Your task to perform on an android device: toggle notification dots Image 0: 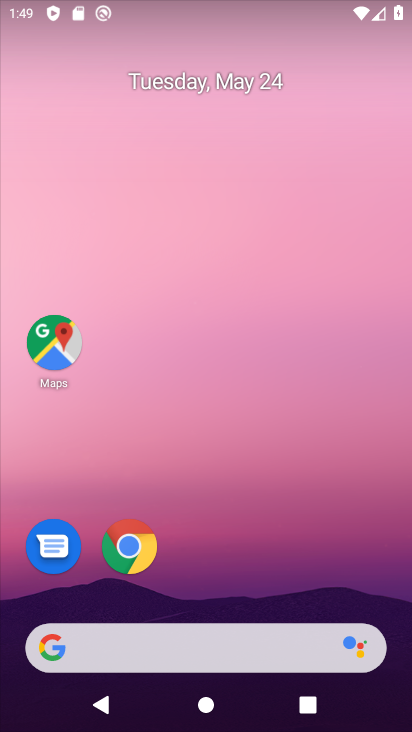
Step 0: drag from (204, 584) to (283, 63)
Your task to perform on an android device: toggle notification dots Image 1: 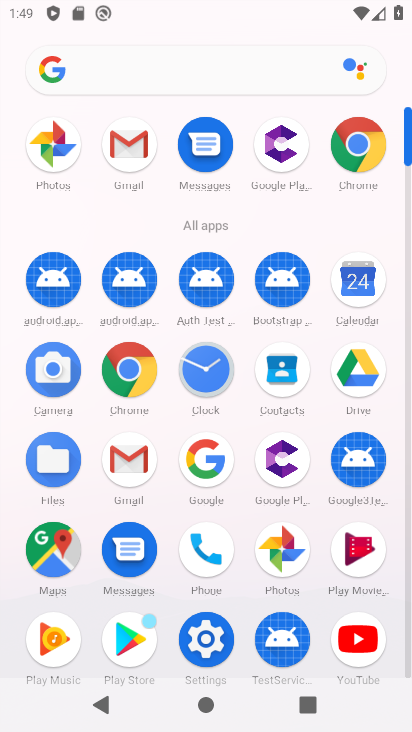
Step 1: click (198, 653)
Your task to perform on an android device: toggle notification dots Image 2: 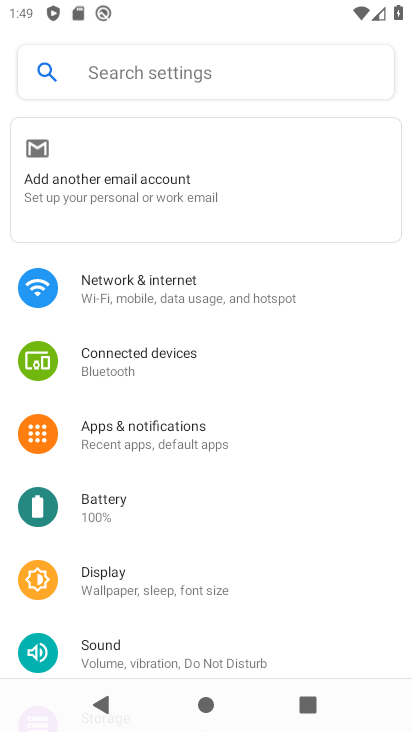
Step 2: click (231, 439)
Your task to perform on an android device: toggle notification dots Image 3: 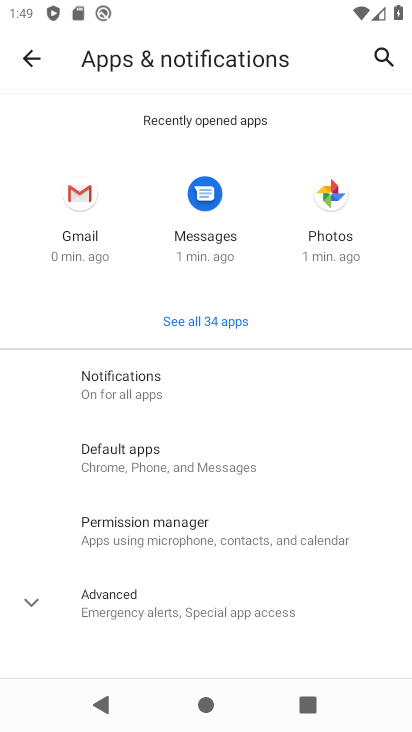
Step 3: click (211, 395)
Your task to perform on an android device: toggle notification dots Image 4: 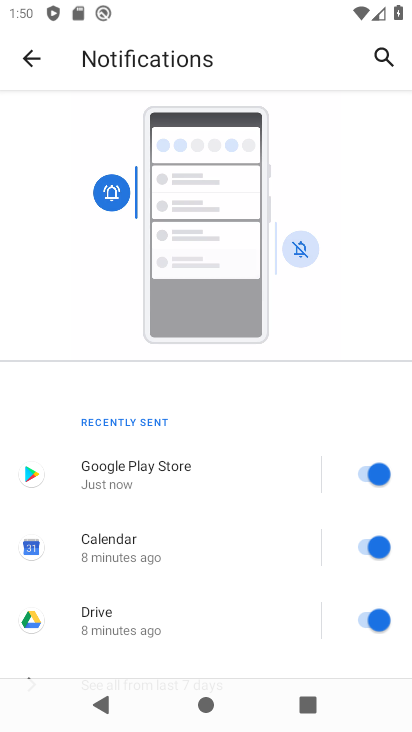
Step 4: drag from (118, 683) to (234, 6)
Your task to perform on an android device: toggle notification dots Image 5: 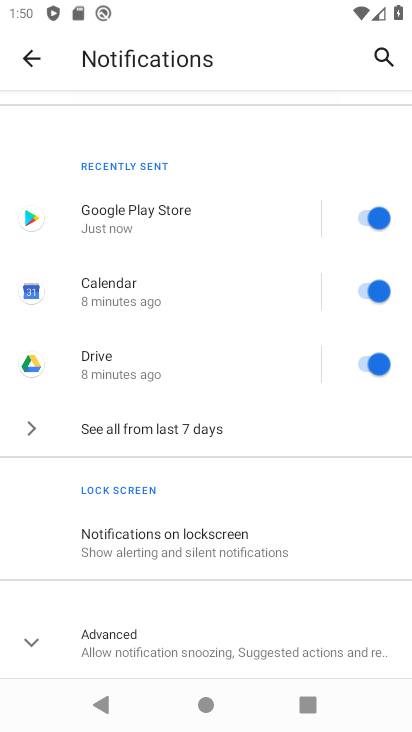
Step 5: drag from (138, 664) to (199, 310)
Your task to perform on an android device: toggle notification dots Image 6: 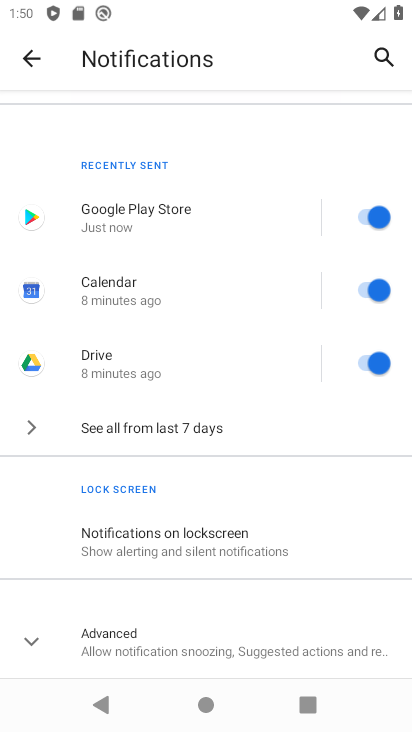
Step 6: click (195, 646)
Your task to perform on an android device: toggle notification dots Image 7: 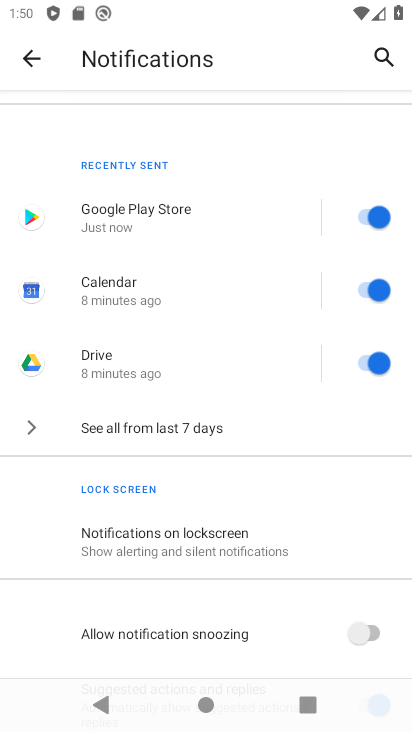
Step 7: drag from (174, 665) to (264, 212)
Your task to perform on an android device: toggle notification dots Image 8: 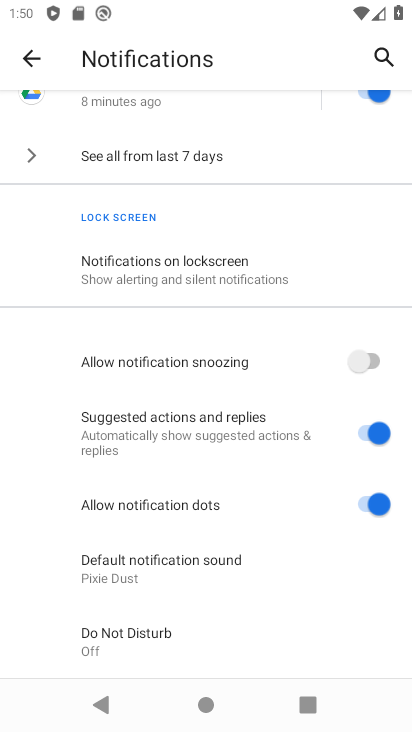
Step 8: click (365, 501)
Your task to perform on an android device: toggle notification dots Image 9: 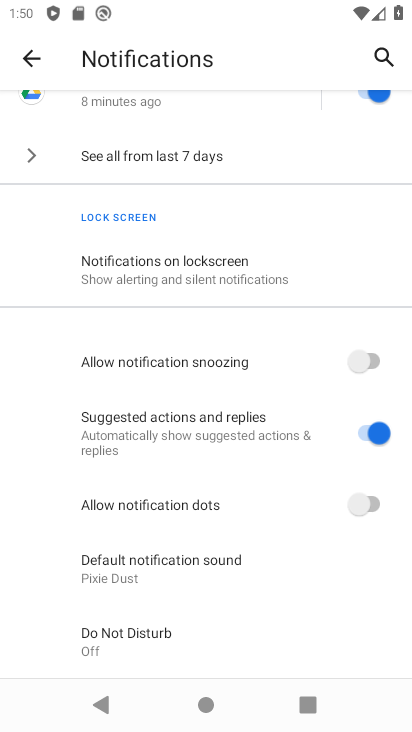
Step 9: task complete